Your task to perform on an android device: turn on translation in the chrome app Image 0: 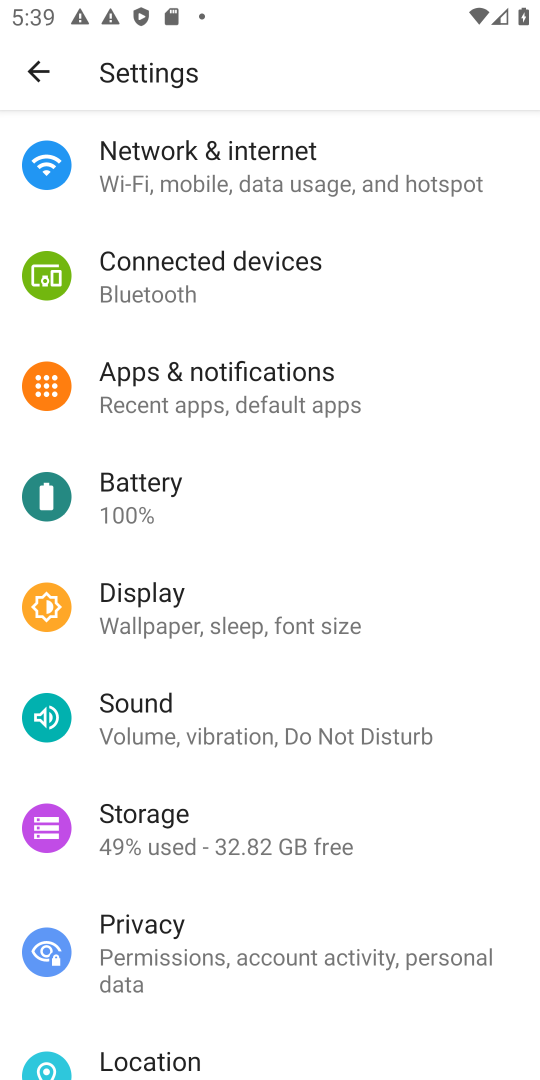
Step 0: press home button
Your task to perform on an android device: turn on translation in the chrome app Image 1: 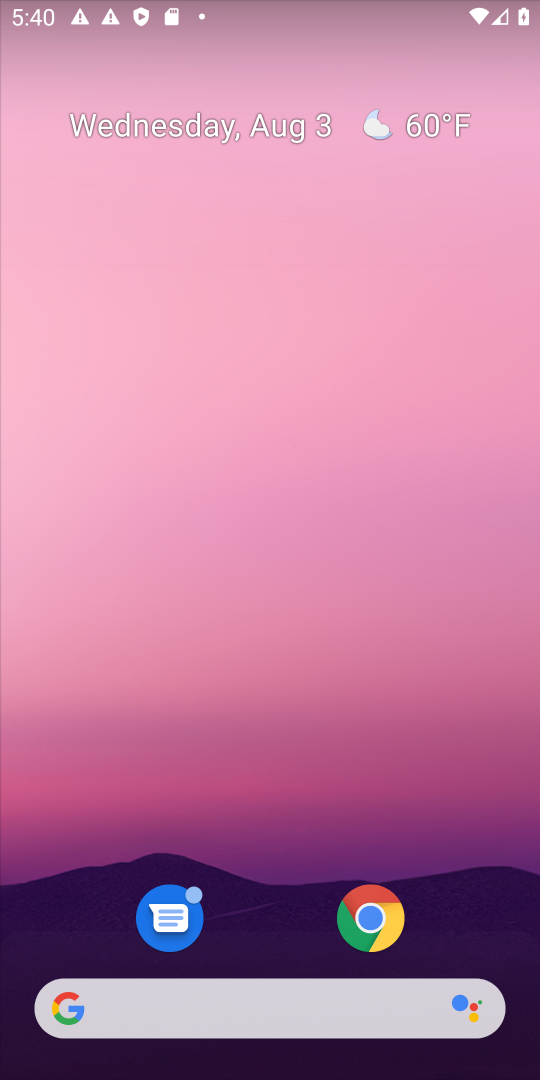
Step 1: click (375, 903)
Your task to perform on an android device: turn on translation in the chrome app Image 2: 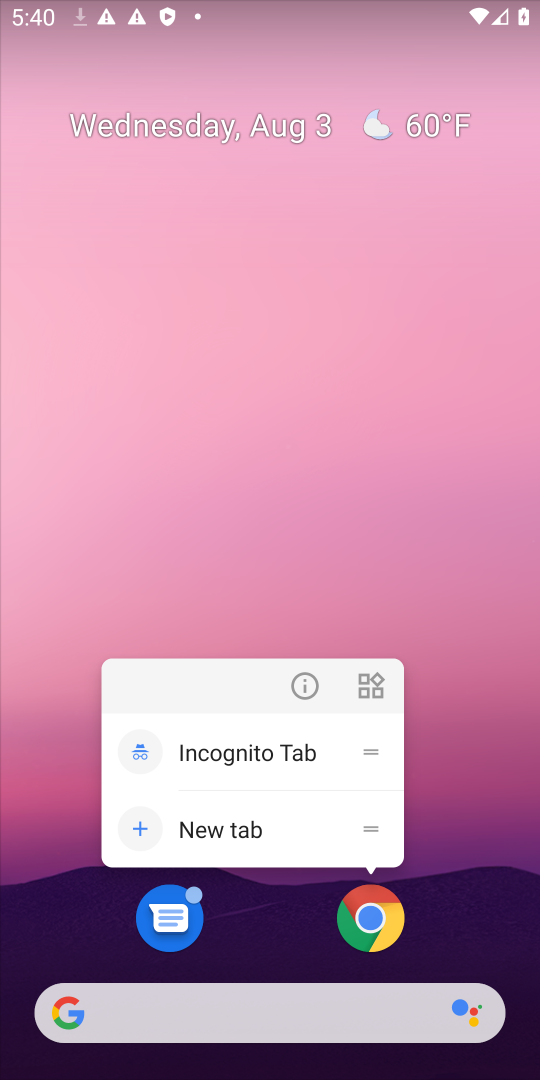
Step 2: click (375, 903)
Your task to perform on an android device: turn on translation in the chrome app Image 3: 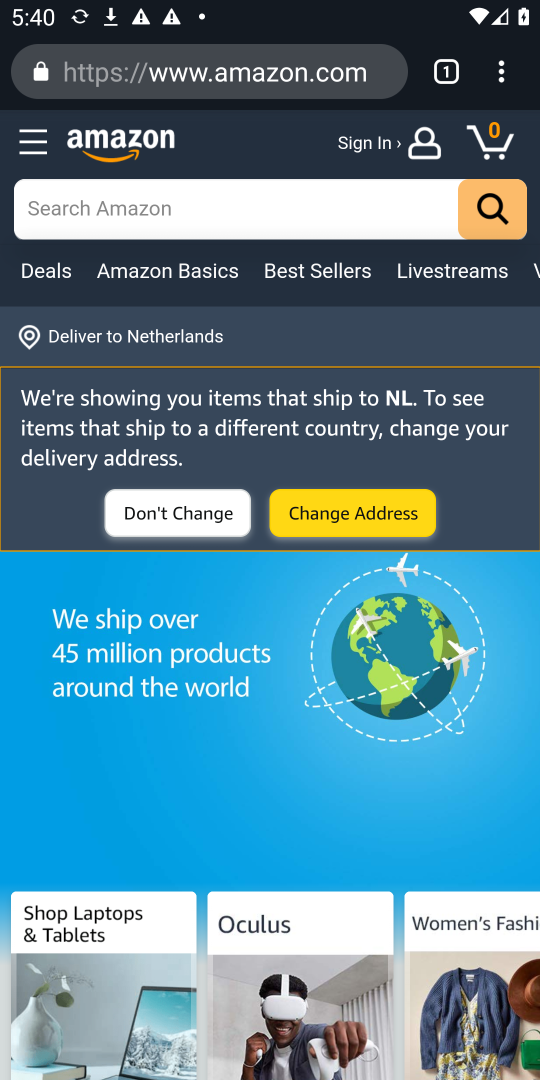
Step 3: click (496, 78)
Your task to perform on an android device: turn on translation in the chrome app Image 4: 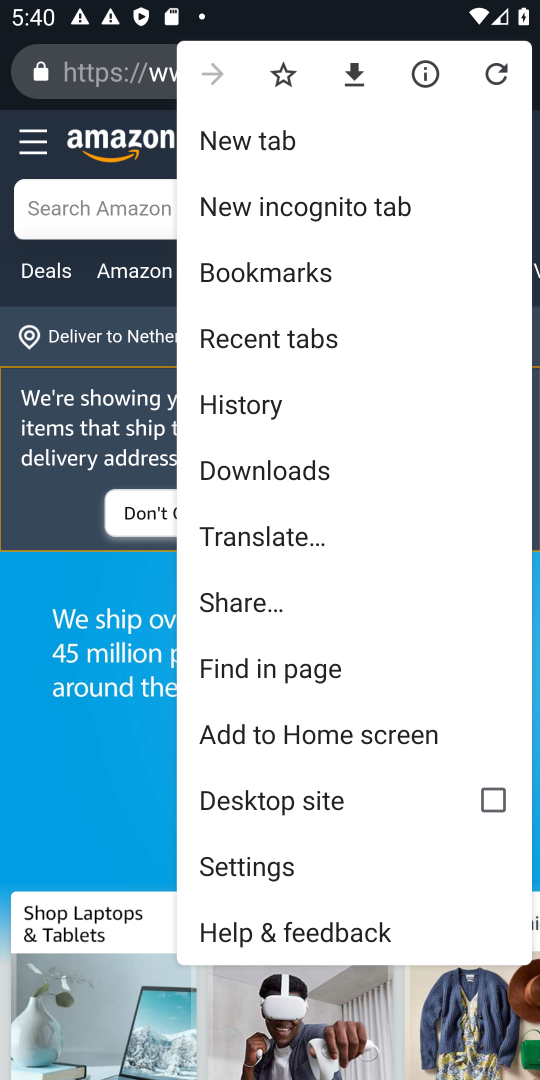
Step 4: click (296, 886)
Your task to perform on an android device: turn on translation in the chrome app Image 5: 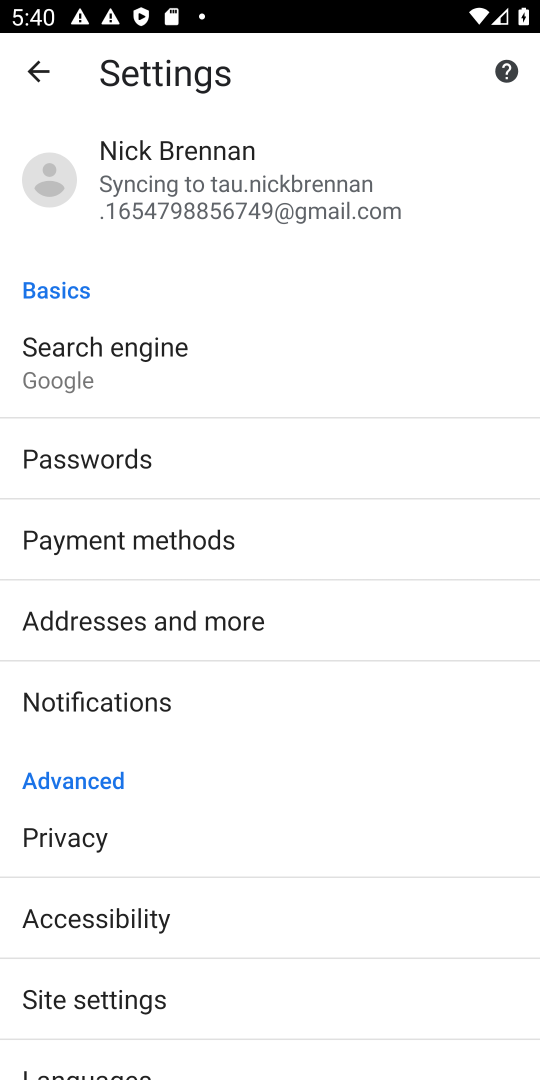
Step 5: drag from (193, 935) to (129, 509)
Your task to perform on an android device: turn on translation in the chrome app Image 6: 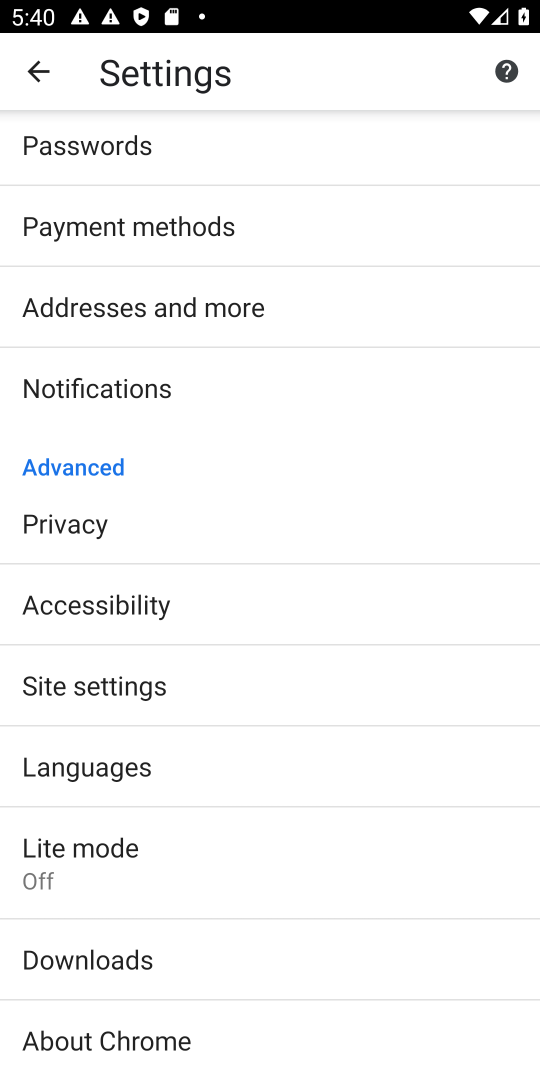
Step 6: click (145, 768)
Your task to perform on an android device: turn on translation in the chrome app Image 7: 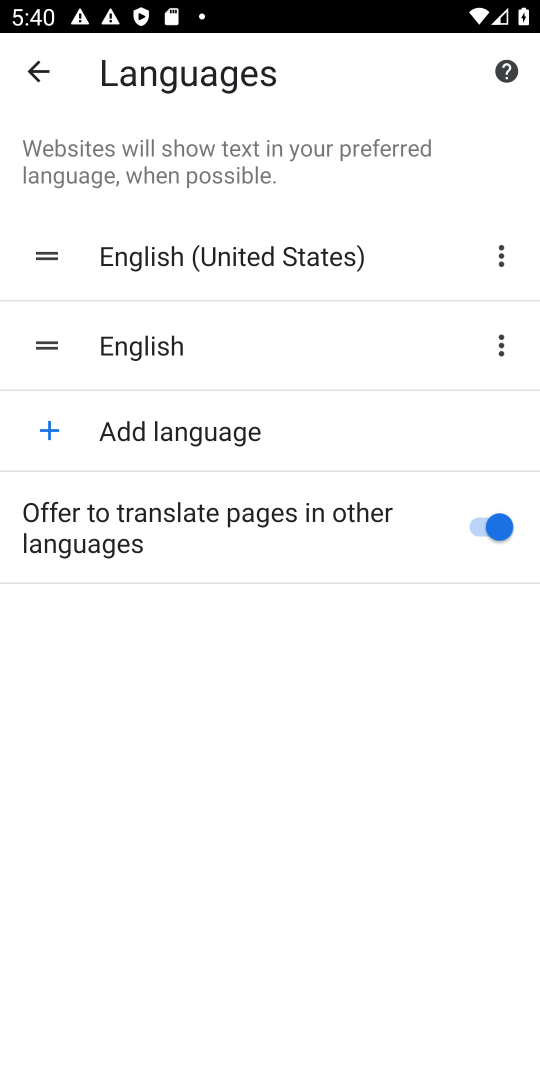
Step 7: task complete